Your task to perform on an android device: check google app version Image 0: 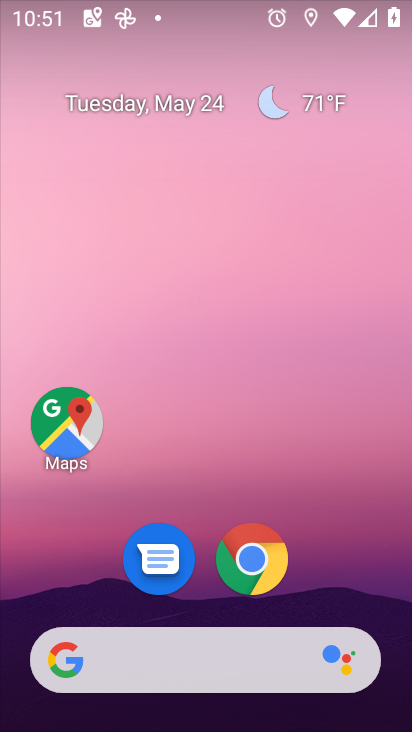
Step 0: drag from (378, 646) to (292, 108)
Your task to perform on an android device: check google app version Image 1: 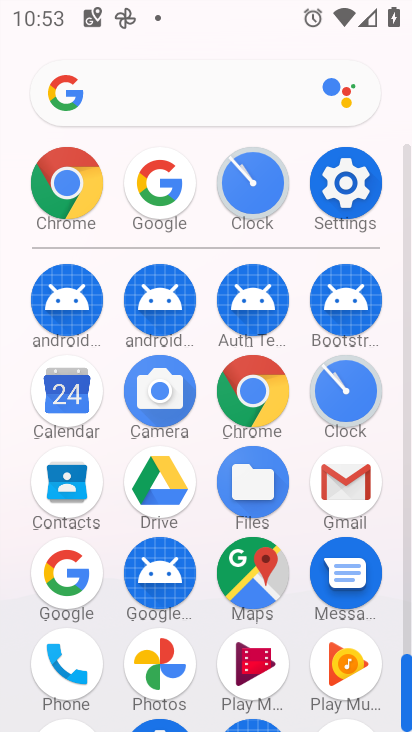
Step 1: click (66, 555)
Your task to perform on an android device: check google app version Image 2: 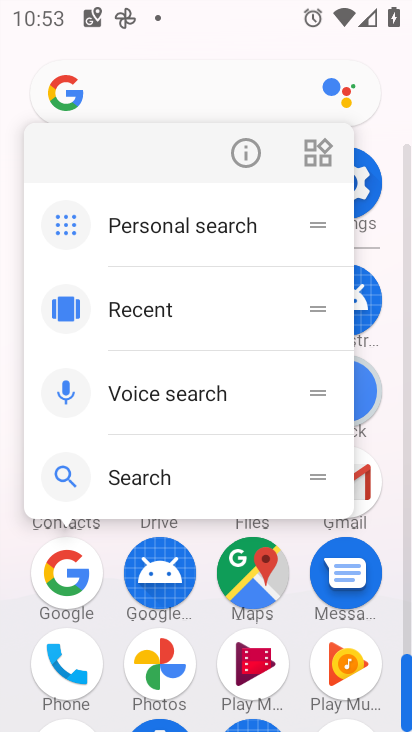
Step 2: click (237, 154)
Your task to perform on an android device: check google app version Image 3: 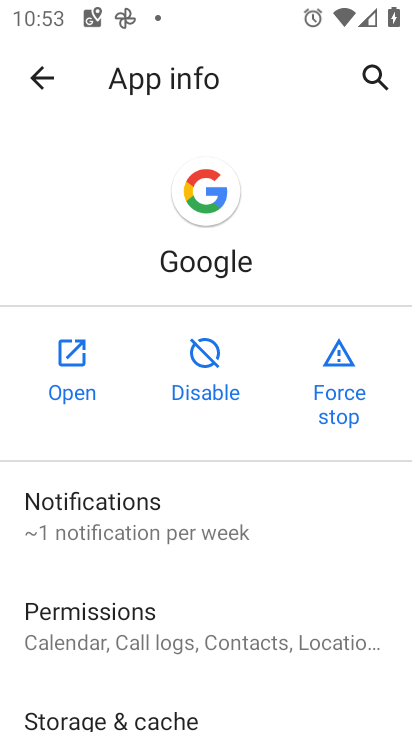
Step 3: drag from (182, 679) to (186, 0)
Your task to perform on an android device: check google app version Image 4: 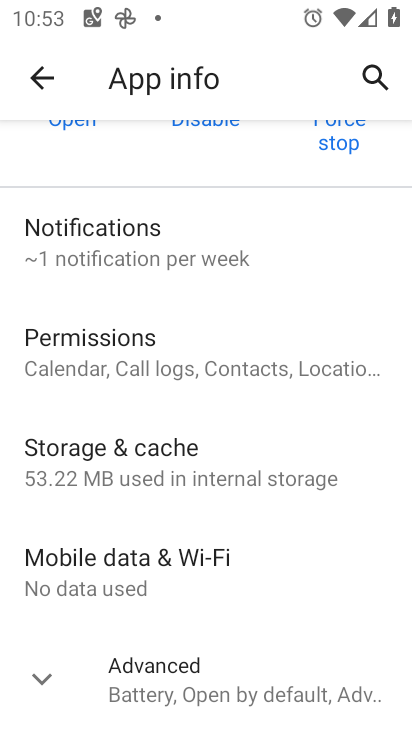
Step 4: click (176, 668)
Your task to perform on an android device: check google app version Image 5: 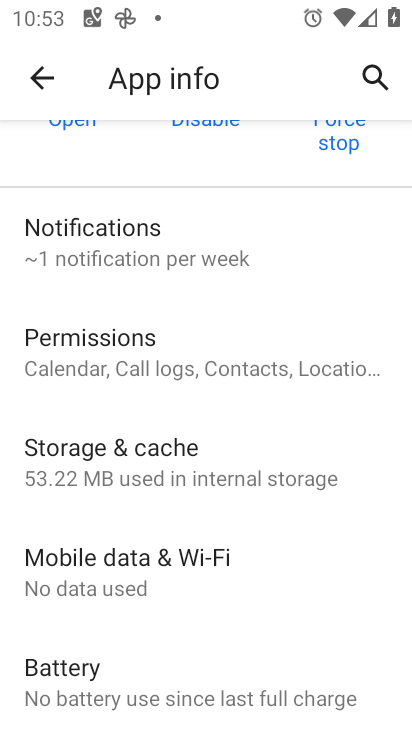
Step 5: task complete